Your task to perform on an android device: Open the map Image 0: 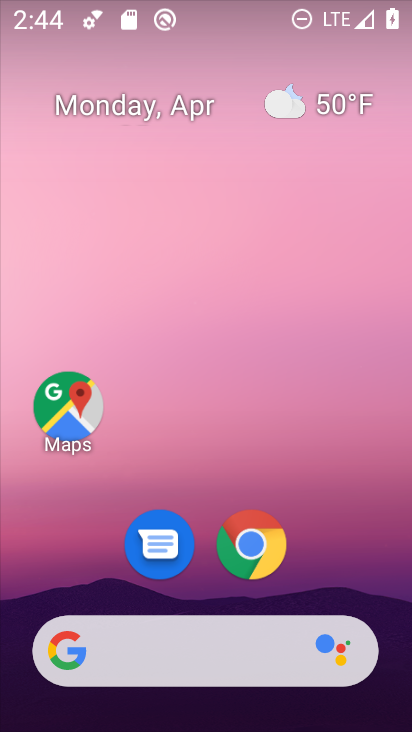
Step 0: click (77, 406)
Your task to perform on an android device: Open the map Image 1: 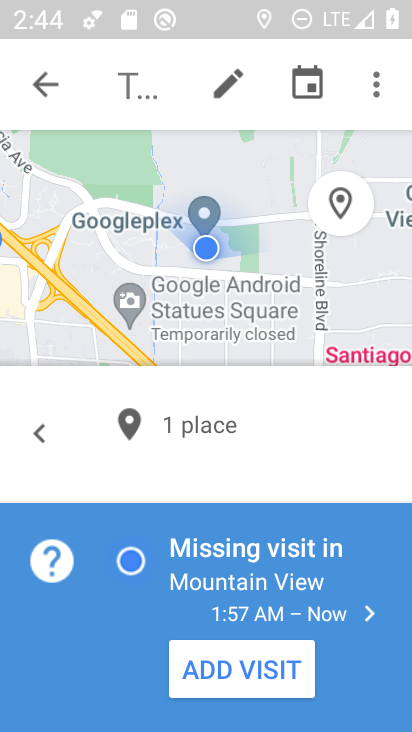
Step 1: click (49, 79)
Your task to perform on an android device: Open the map Image 2: 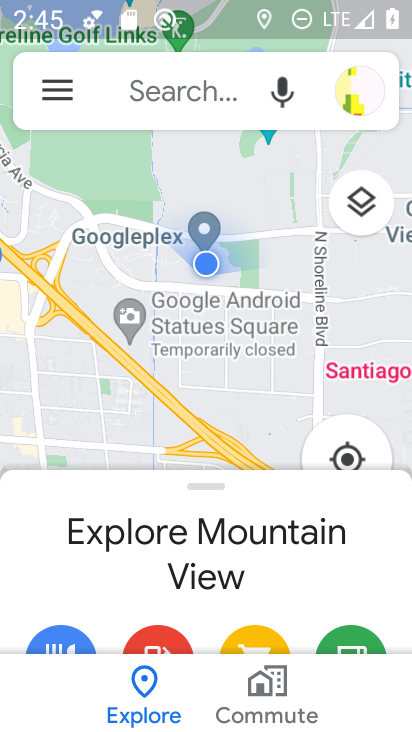
Step 2: task complete